Your task to perform on an android device: turn on javascript in the chrome app Image 0: 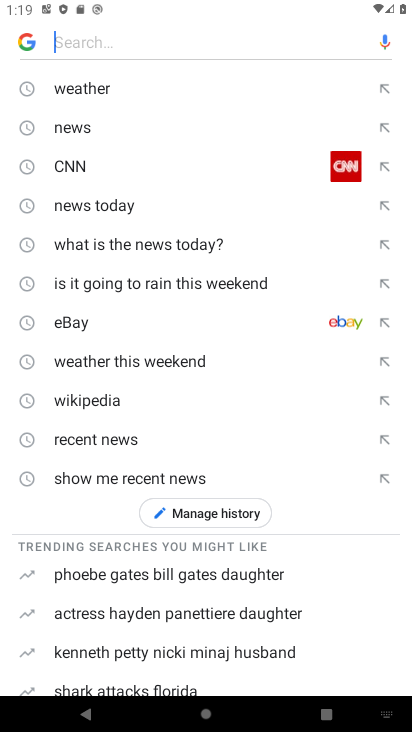
Step 0: press home button
Your task to perform on an android device: turn on javascript in the chrome app Image 1: 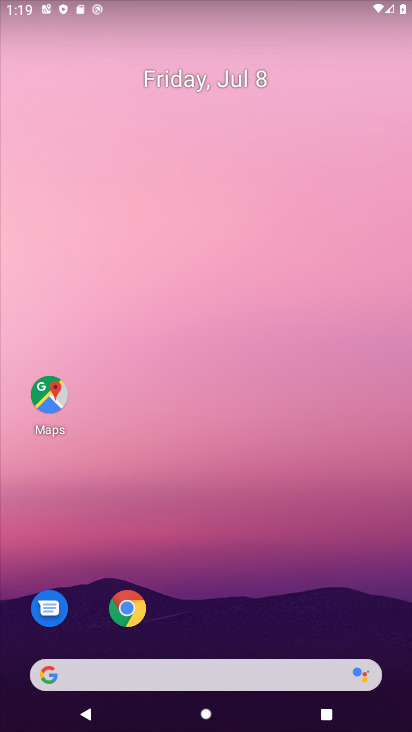
Step 1: click (125, 606)
Your task to perform on an android device: turn on javascript in the chrome app Image 2: 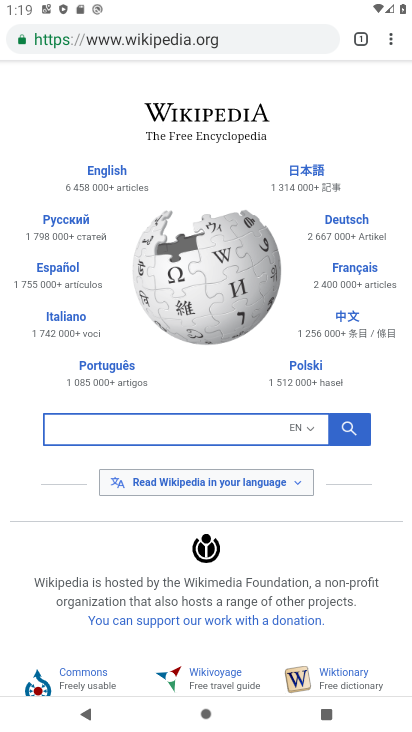
Step 2: click (390, 42)
Your task to perform on an android device: turn on javascript in the chrome app Image 3: 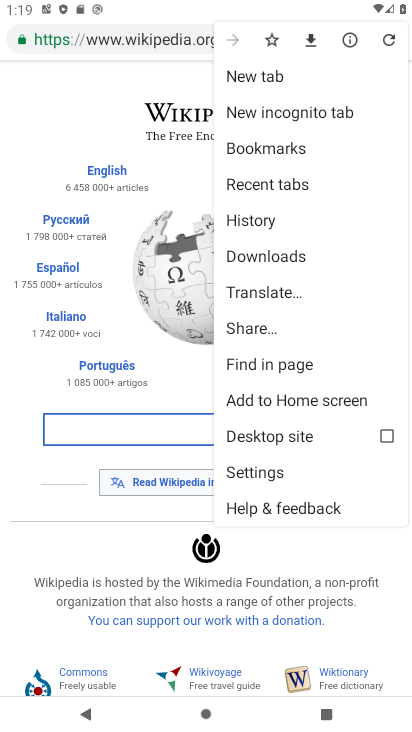
Step 3: click (276, 465)
Your task to perform on an android device: turn on javascript in the chrome app Image 4: 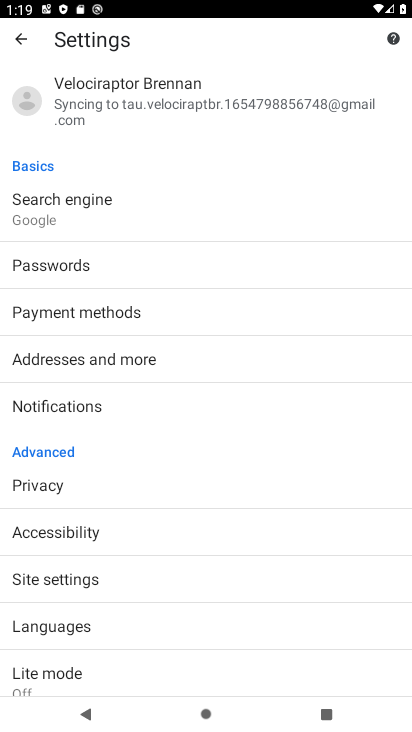
Step 4: drag from (162, 619) to (196, 304)
Your task to perform on an android device: turn on javascript in the chrome app Image 5: 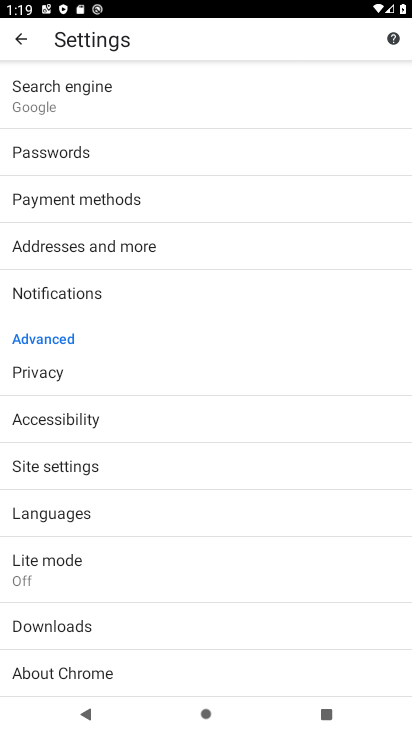
Step 5: click (63, 459)
Your task to perform on an android device: turn on javascript in the chrome app Image 6: 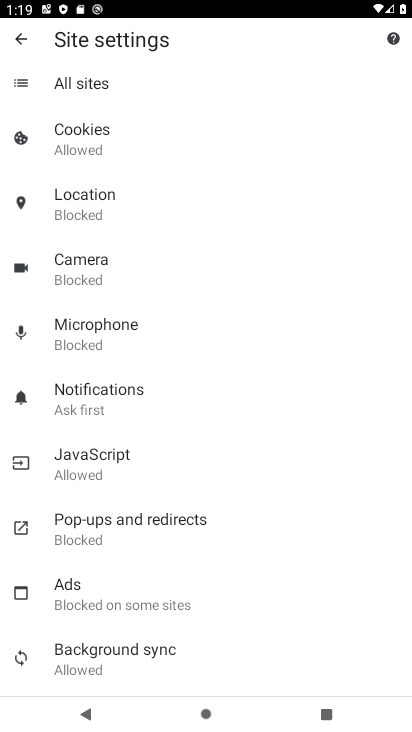
Step 6: click (99, 462)
Your task to perform on an android device: turn on javascript in the chrome app Image 7: 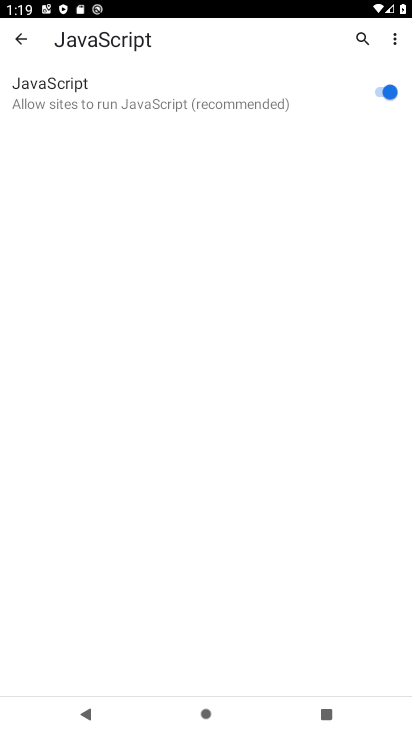
Step 7: task complete